Your task to perform on an android device: What's on my calendar tomorrow? Image 0: 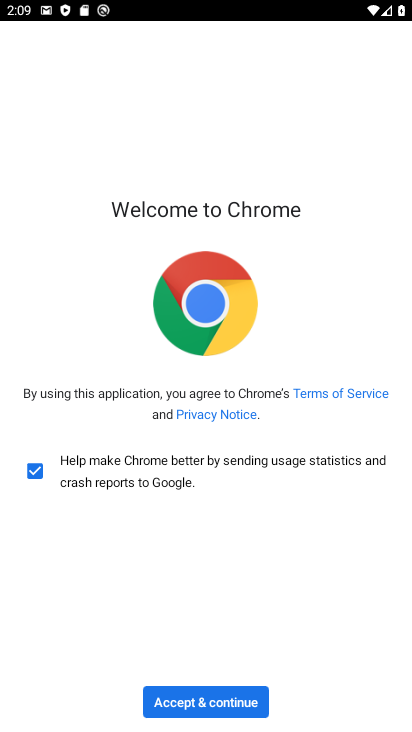
Step 0: press home button
Your task to perform on an android device: What's on my calendar tomorrow? Image 1: 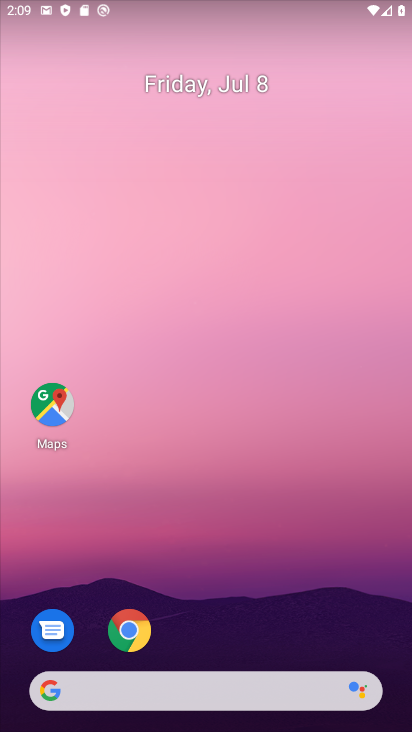
Step 1: drag from (276, 629) to (268, 213)
Your task to perform on an android device: What's on my calendar tomorrow? Image 2: 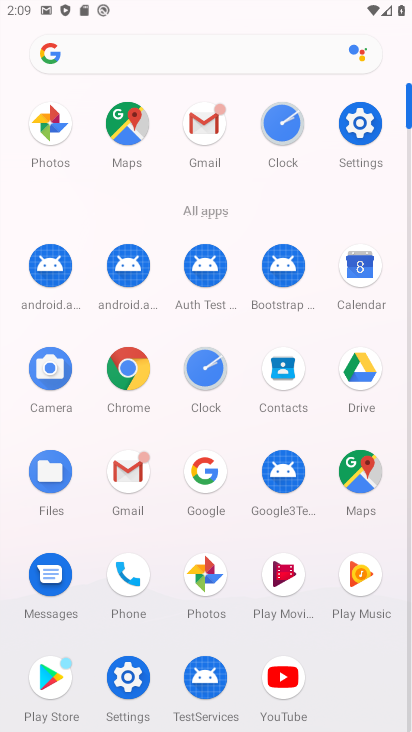
Step 2: click (354, 297)
Your task to perform on an android device: What's on my calendar tomorrow? Image 3: 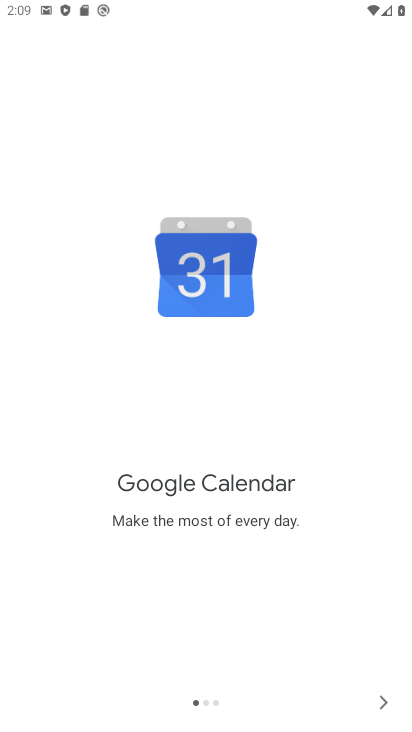
Step 3: click (368, 711)
Your task to perform on an android device: What's on my calendar tomorrow? Image 4: 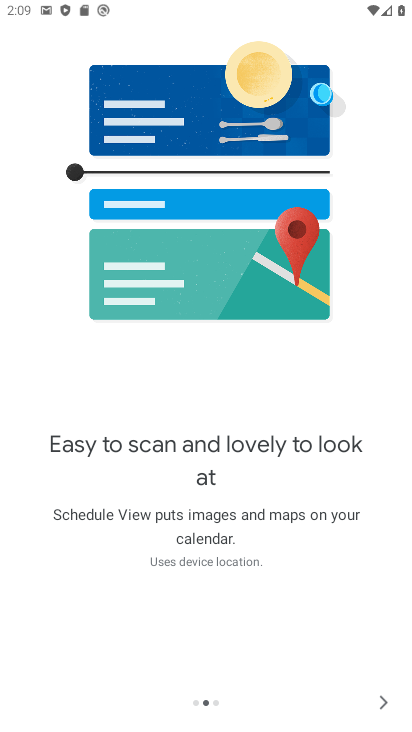
Step 4: click (368, 711)
Your task to perform on an android device: What's on my calendar tomorrow? Image 5: 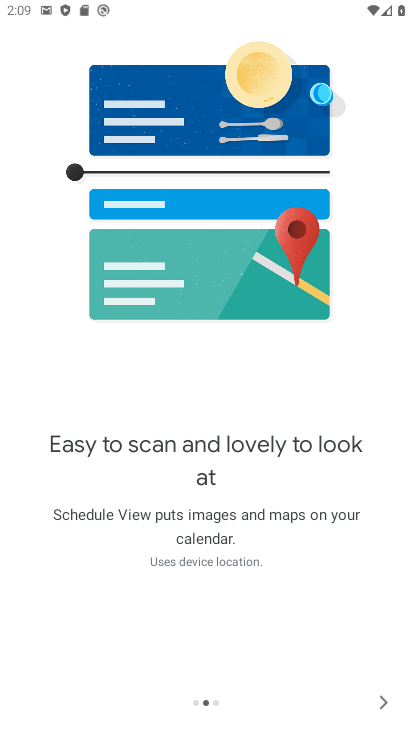
Step 5: click (368, 711)
Your task to perform on an android device: What's on my calendar tomorrow? Image 6: 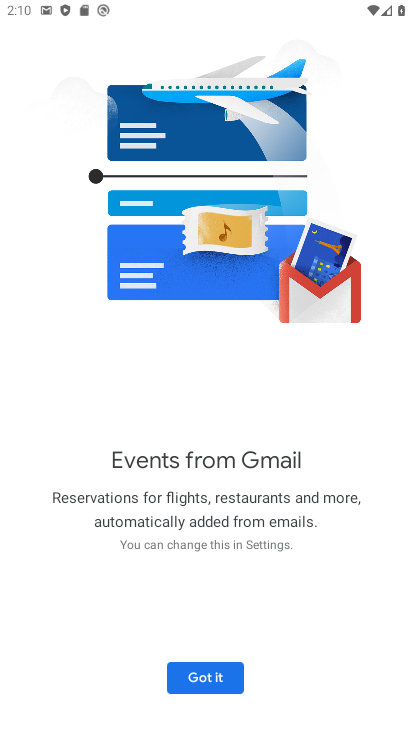
Step 6: click (188, 674)
Your task to perform on an android device: What's on my calendar tomorrow? Image 7: 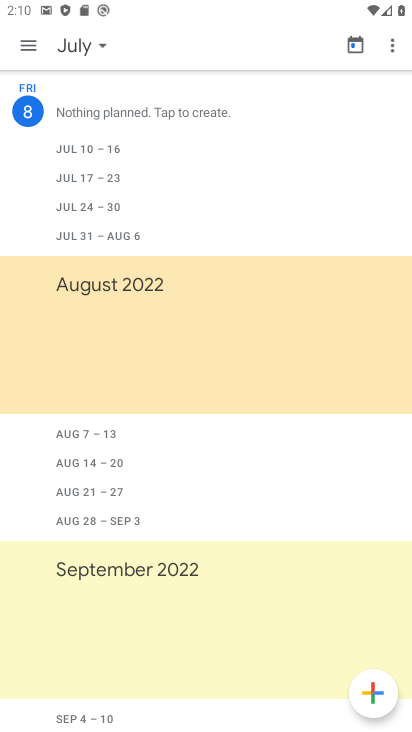
Step 7: click (101, 53)
Your task to perform on an android device: What's on my calendar tomorrow? Image 8: 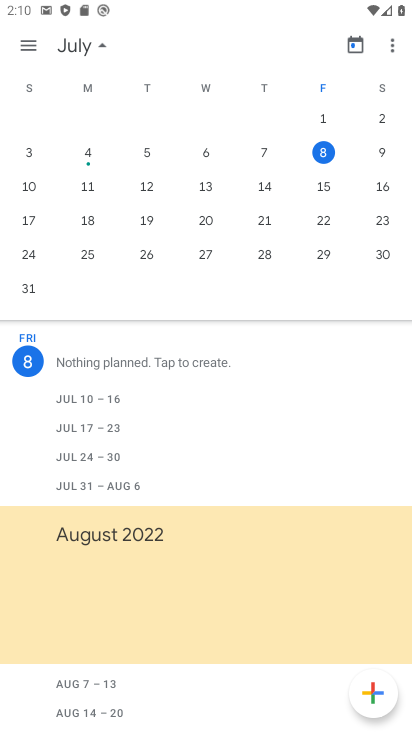
Step 8: click (379, 157)
Your task to perform on an android device: What's on my calendar tomorrow? Image 9: 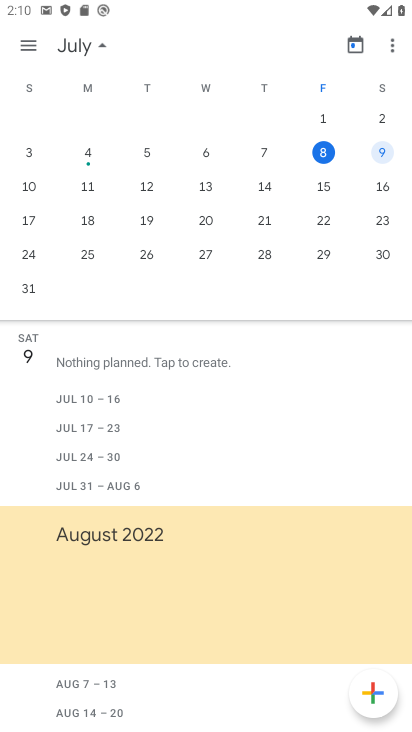
Step 9: task complete